Your task to perform on an android device: Go to Yahoo.com Image 0: 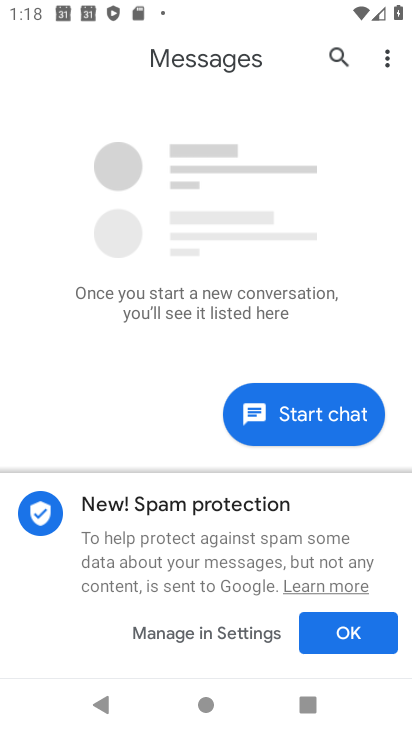
Step 0: press home button
Your task to perform on an android device: Go to Yahoo.com Image 1: 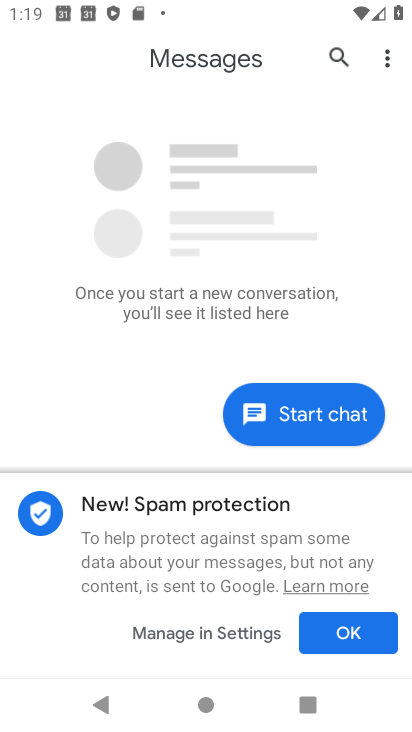
Step 1: drag from (333, 478) to (359, 311)
Your task to perform on an android device: Go to Yahoo.com Image 2: 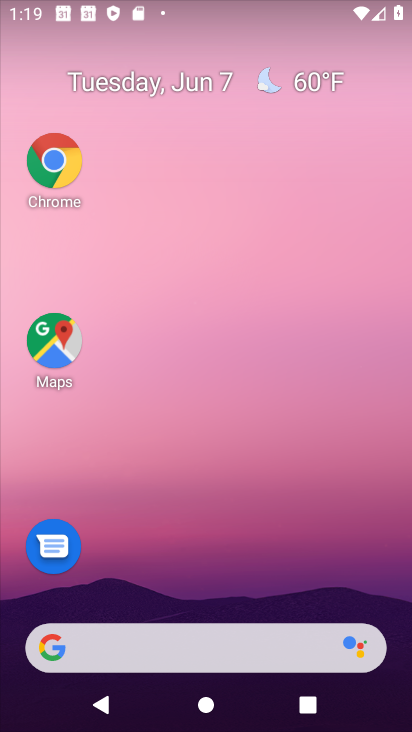
Step 2: drag from (171, 485) to (226, 0)
Your task to perform on an android device: Go to Yahoo.com Image 3: 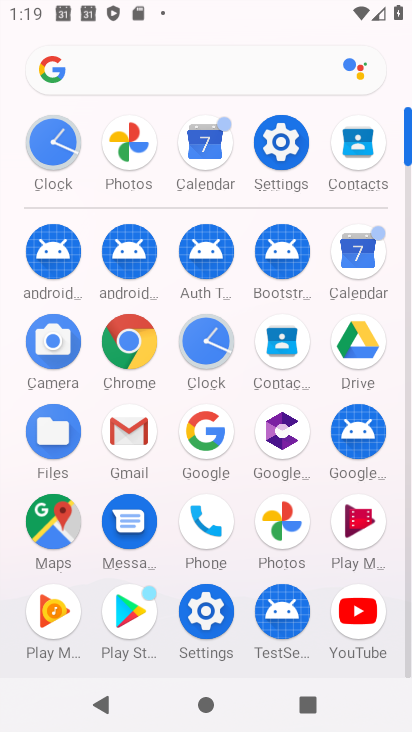
Step 3: click (130, 72)
Your task to perform on an android device: Go to Yahoo.com Image 4: 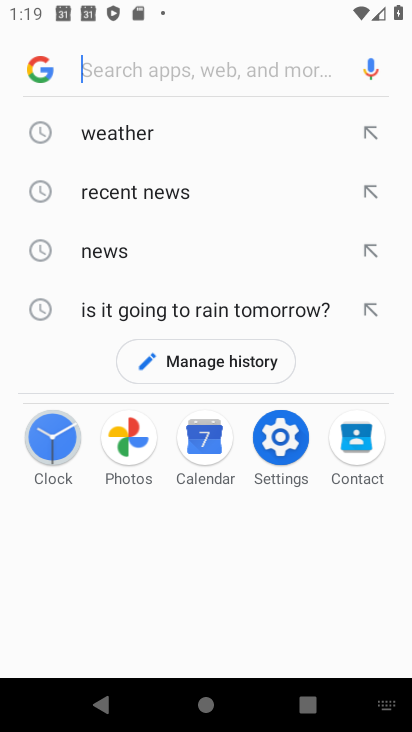
Step 4: type "Yahoo.com"
Your task to perform on an android device: Go to Yahoo.com Image 5: 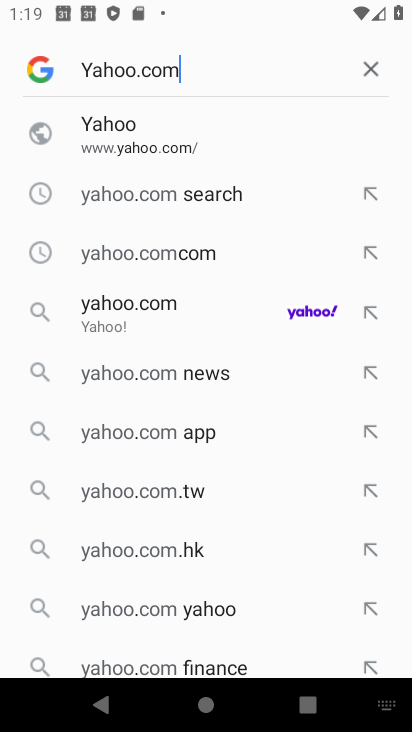
Step 5: type ""
Your task to perform on an android device: Go to Yahoo.com Image 6: 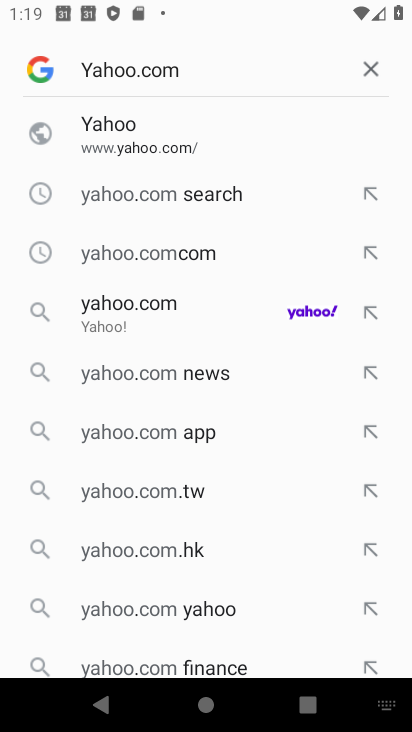
Step 6: click (191, 317)
Your task to perform on an android device: Go to Yahoo.com Image 7: 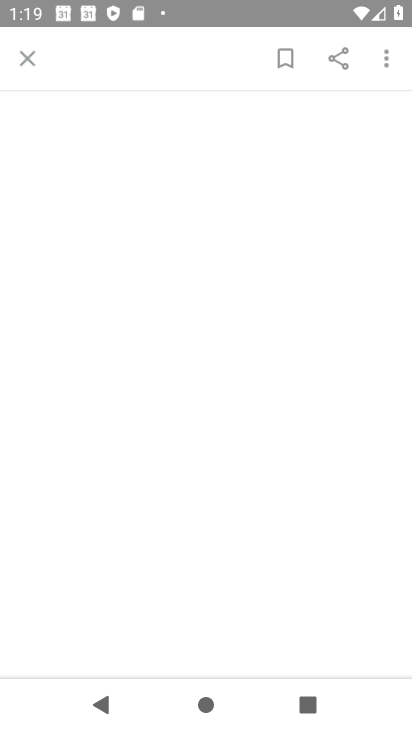
Step 7: task complete